Your task to perform on an android device: Go to Google Image 0: 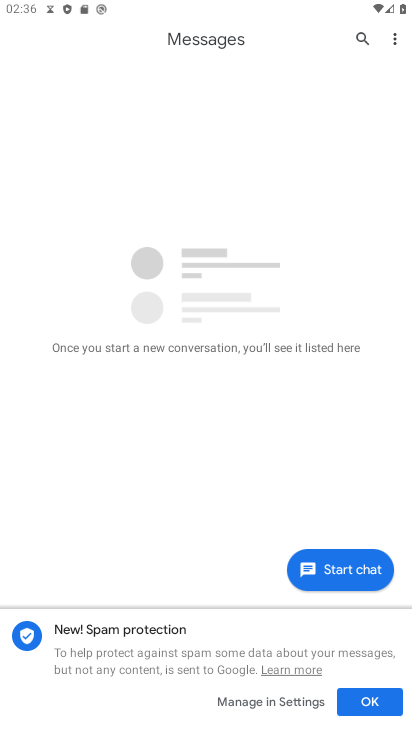
Step 0: press back button
Your task to perform on an android device: Go to Google Image 1: 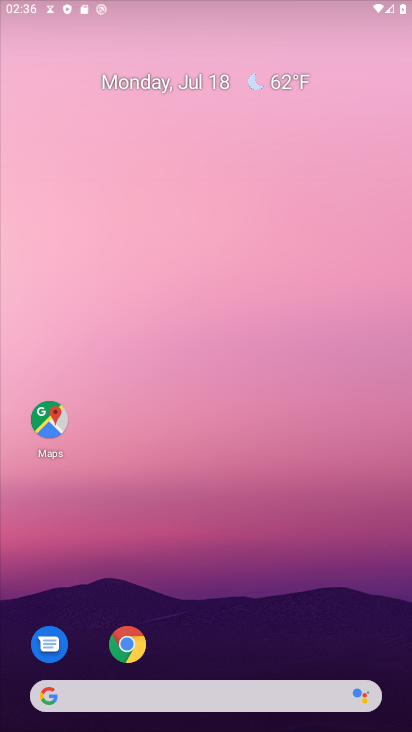
Step 1: press home button
Your task to perform on an android device: Go to Google Image 2: 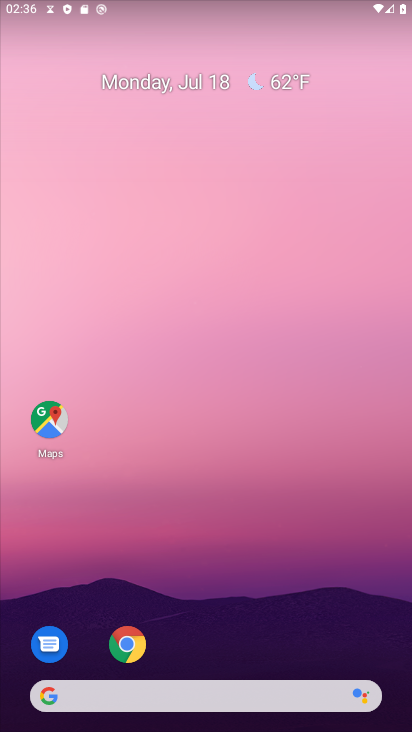
Step 2: drag from (281, 586) to (247, 94)
Your task to perform on an android device: Go to Google Image 3: 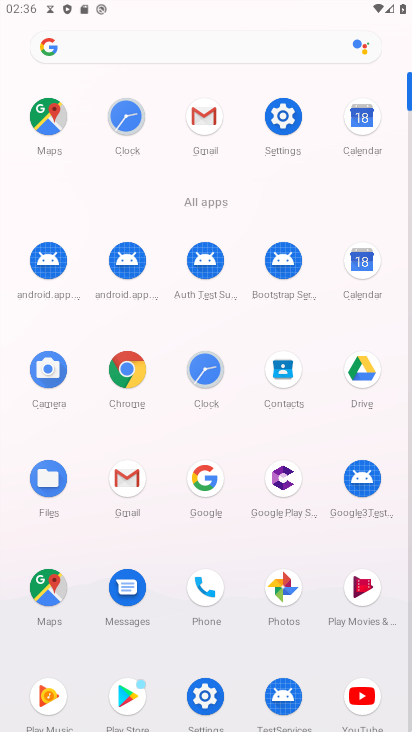
Step 3: click (201, 481)
Your task to perform on an android device: Go to Google Image 4: 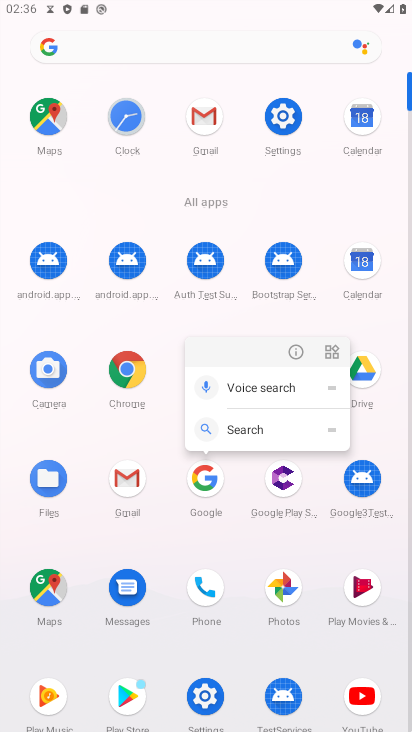
Step 4: click (200, 479)
Your task to perform on an android device: Go to Google Image 5: 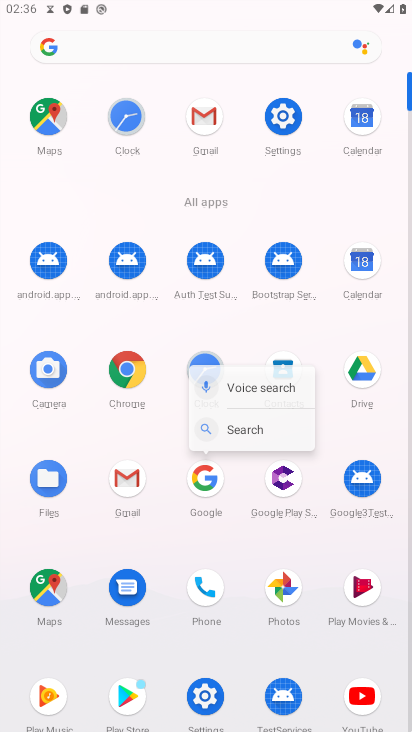
Step 5: click (200, 479)
Your task to perform on an android device: Go to Google Image 6: 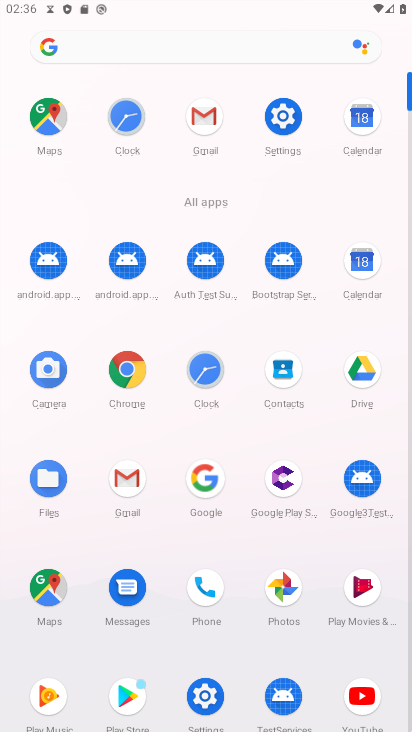
Step 6: click (204, 482)
Your task to perform on an android device: Go to Google Image 7: 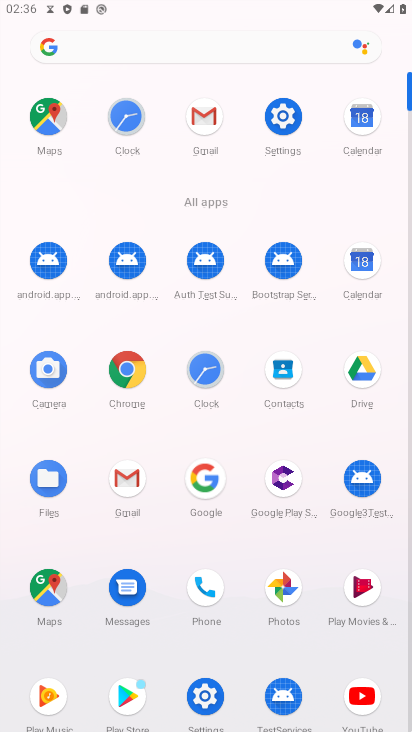
Step 7: click (205, 482)
Your task to perform on an android device: Go to Google Image 8: 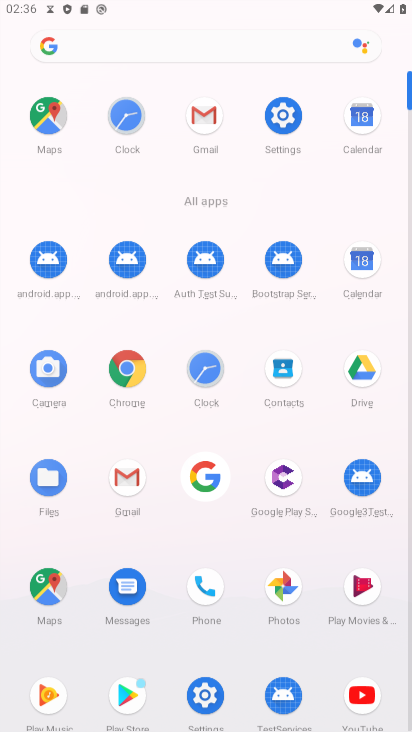
Step 8: click (209, 477)
Your task to perform on an android device: Go to Google Image 9: 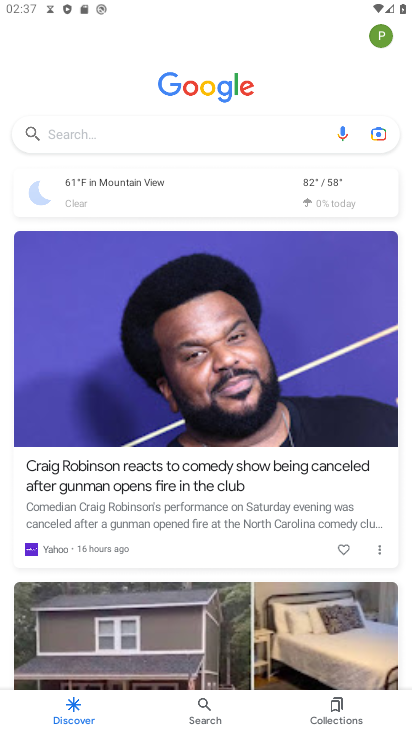
Step 9: task complete